Your task to perform on an android device: Turn on the flashlight Image 0: 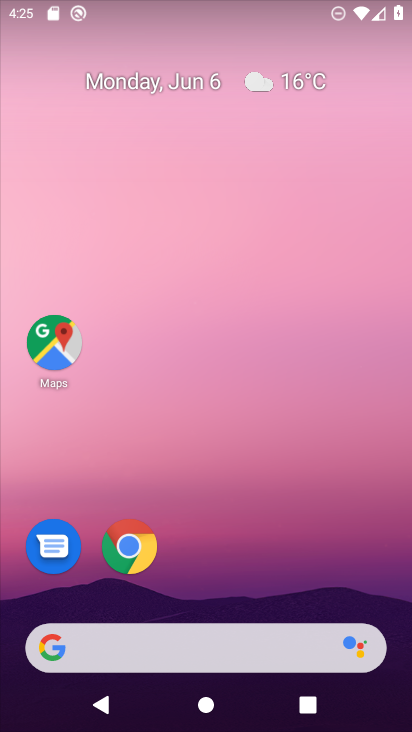
Step 0: drag from (210, 624) to (174, 14)
Your task to perform on an android device: Turn on the flashlight Image 1: 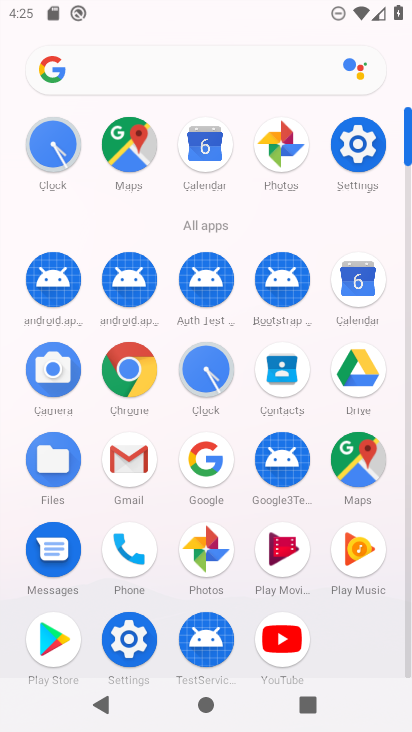
Step 1: click (361, 141)
Your task to perform on an android device: Turn on the flashlight Image 2: 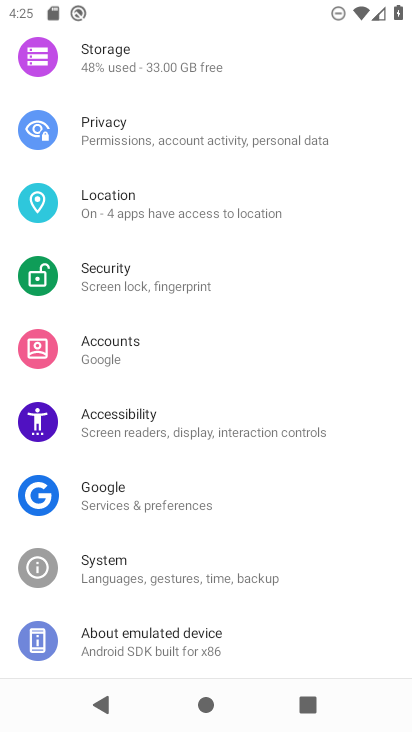
Step 2: task complete